Your task to perform on an android device: Show me popular games on the Play Store Image 0: 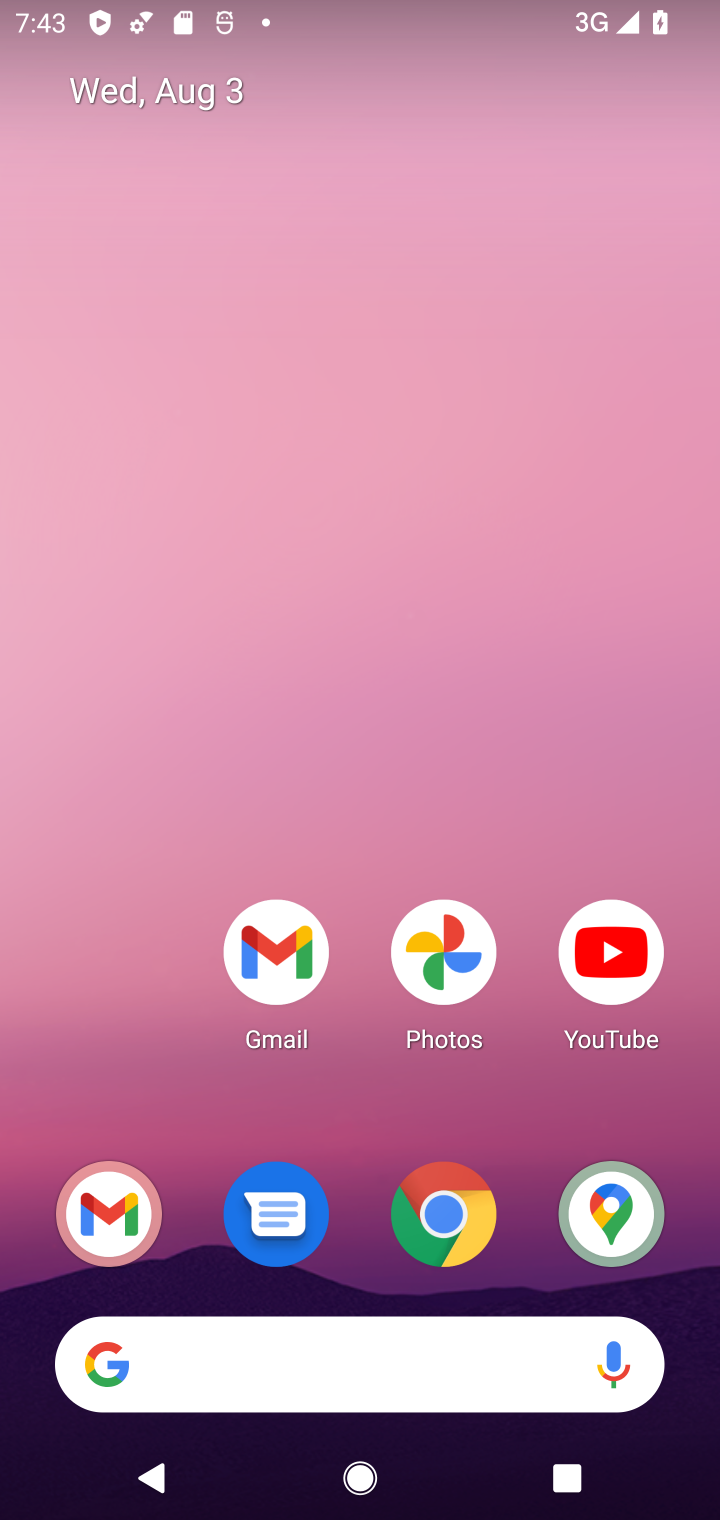
Step 0: drag from (94, 864) to (719, 498)
Your task to perform on an android device: Show me popular games on the Play Store Image 1: 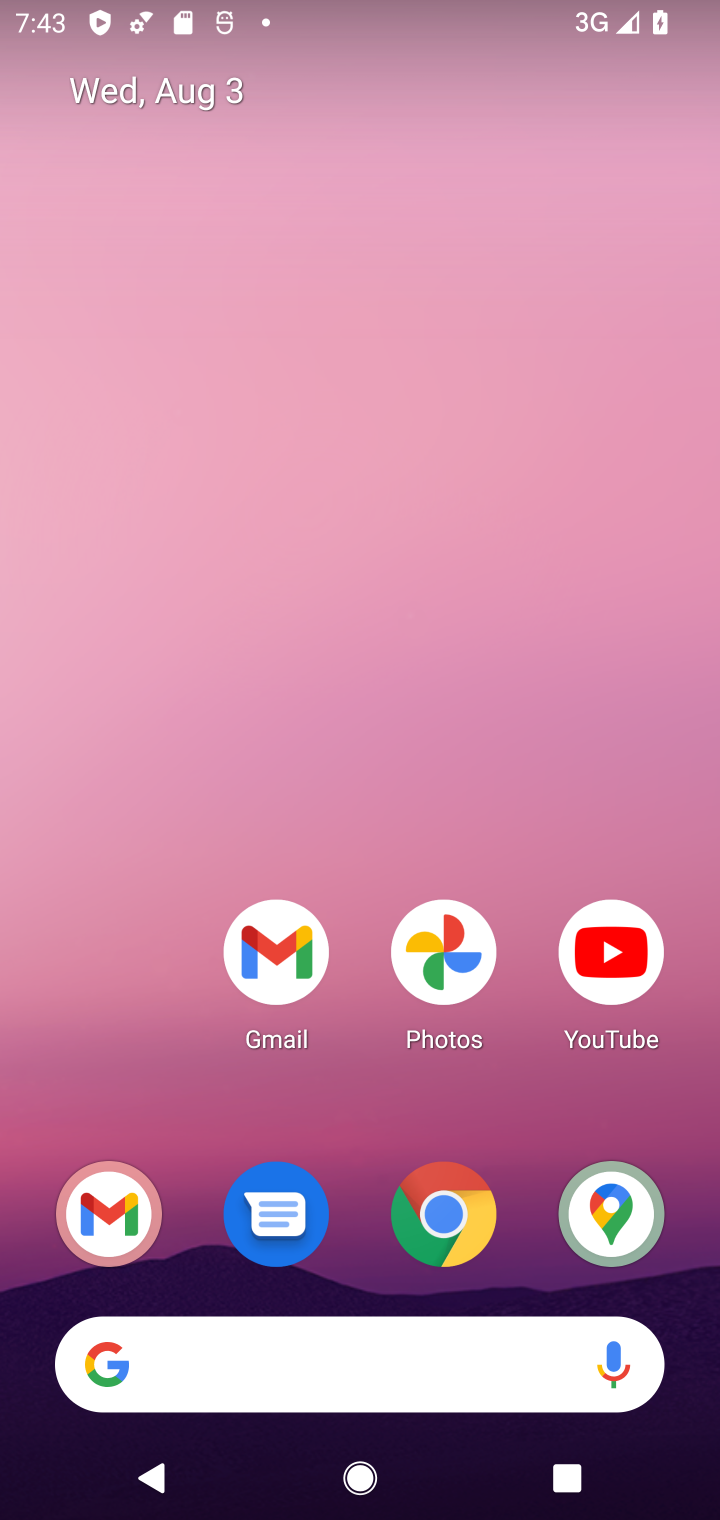
Step 1: drag from (373, 1187) to (392, 0)
Your task to perform on an android device: Show me popular games on the Play Store Image 2: 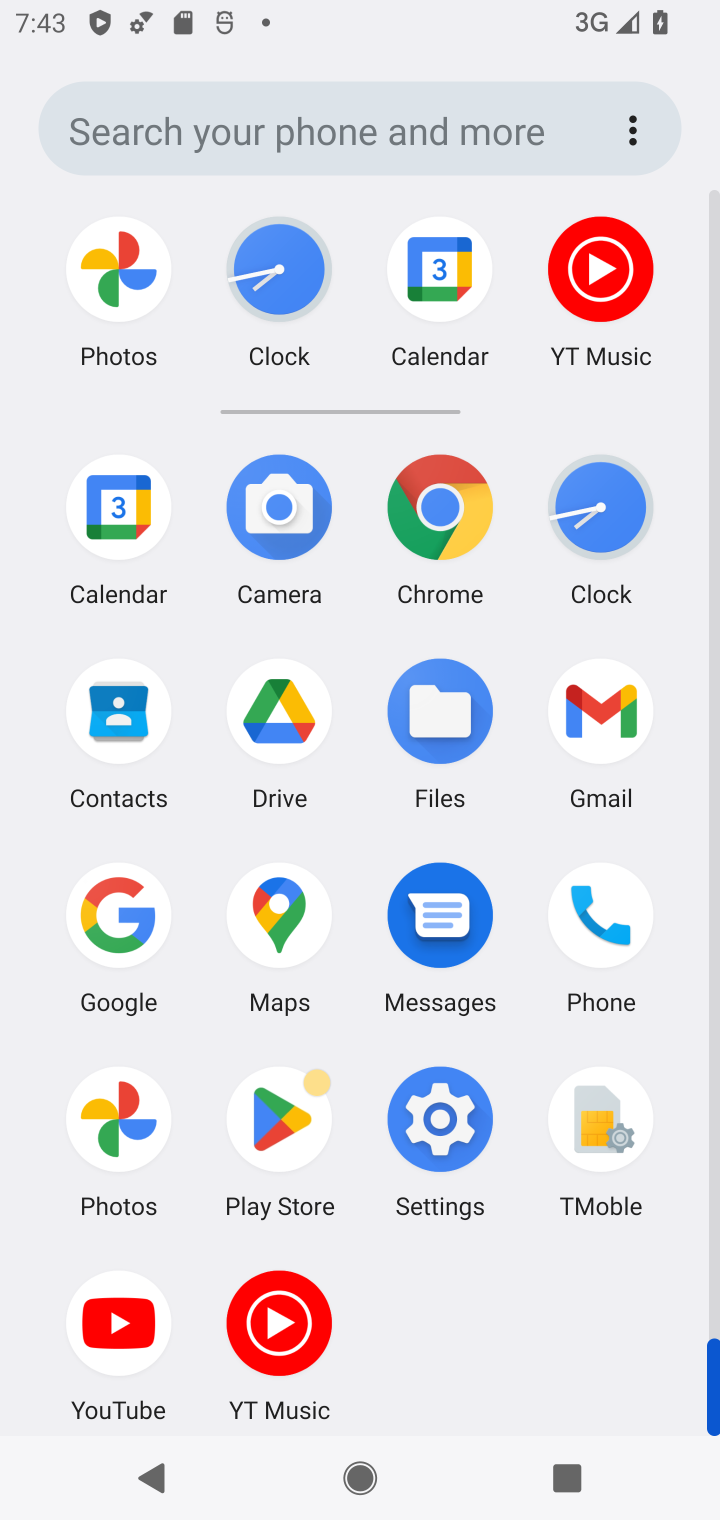
Step 2: click (267, 1123)
Your task to perform on an android device: Show me popular games on the Play Store Image 3: 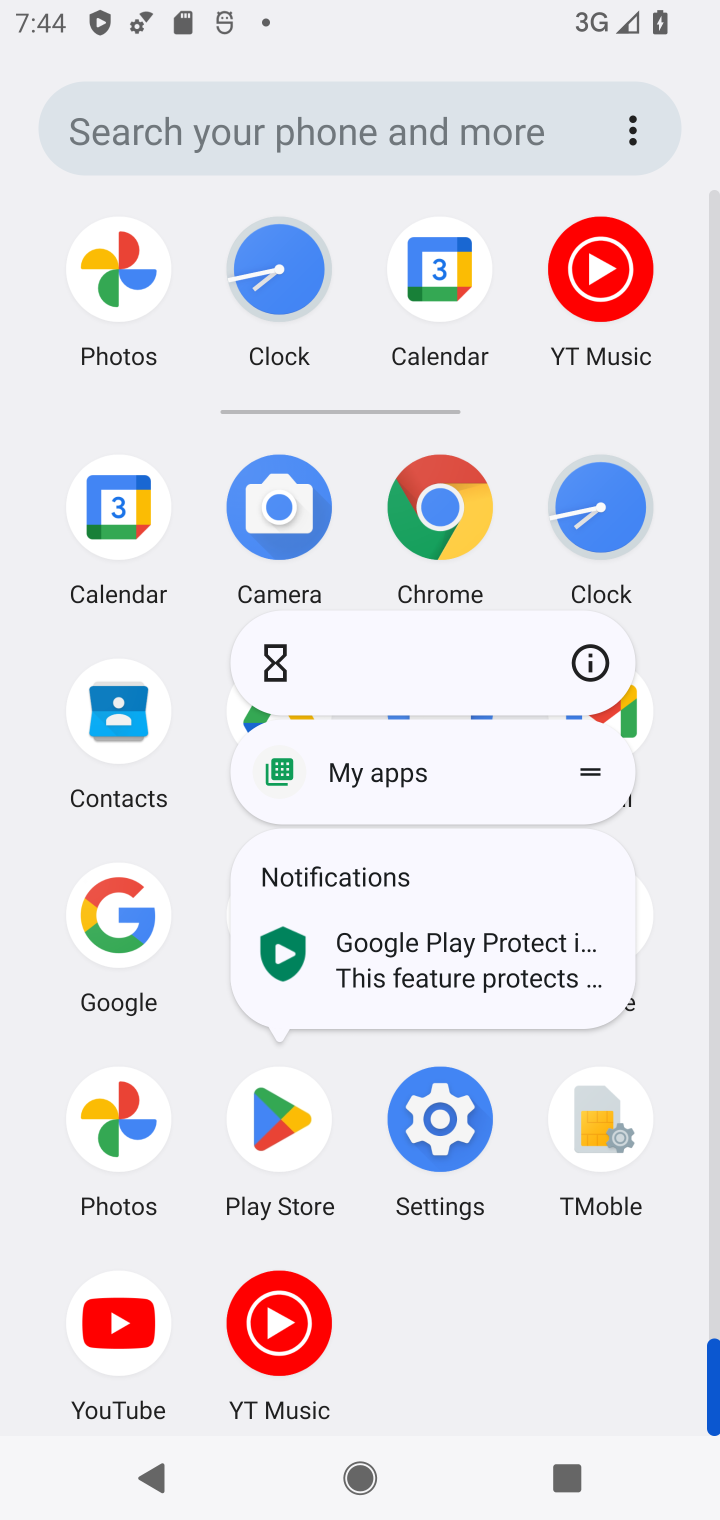
Step 3: click (258, 1121)
Your task to perform on an android device: Show me popular games on the Play Store Image 4: 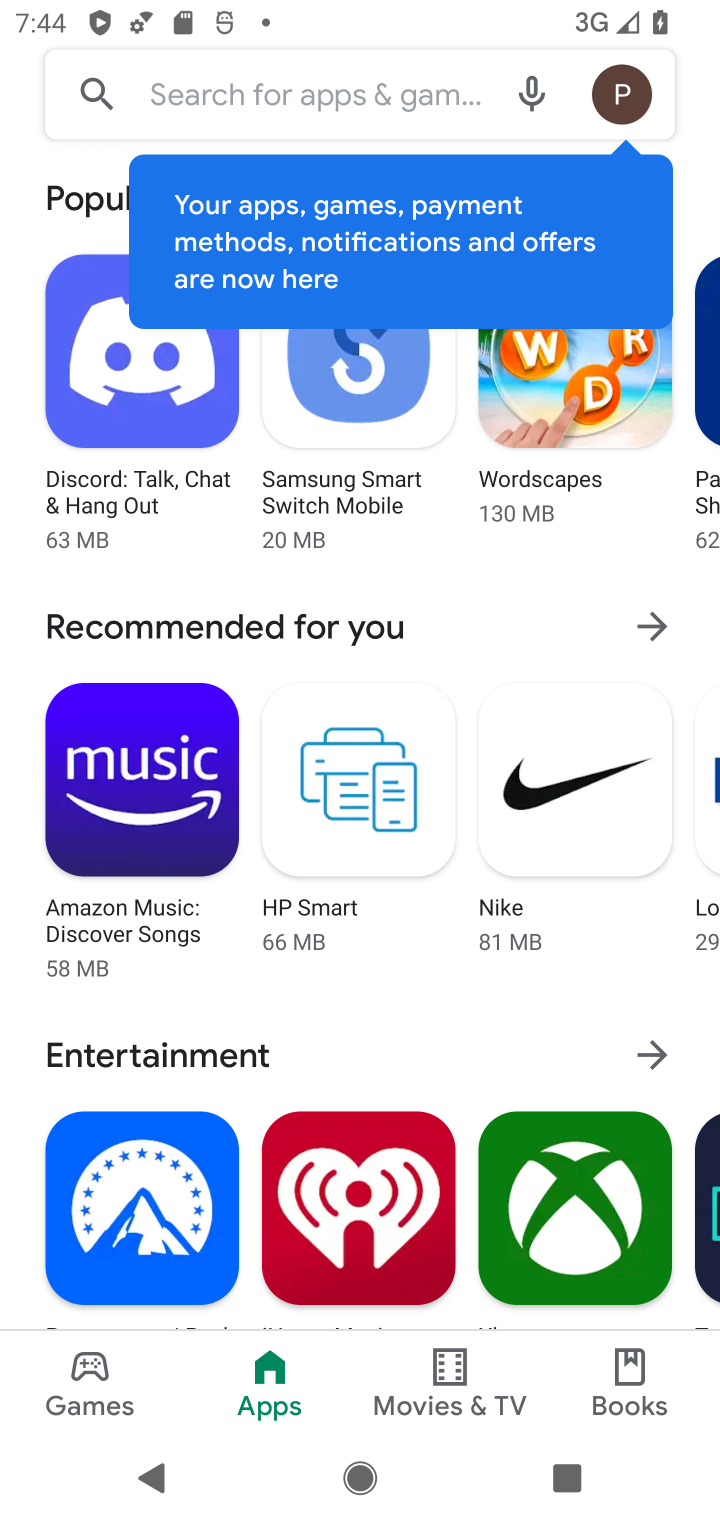
Step 4: click (309, 113)
Your task to perform on an android device: Show me popular games on the Play Store Image 5: 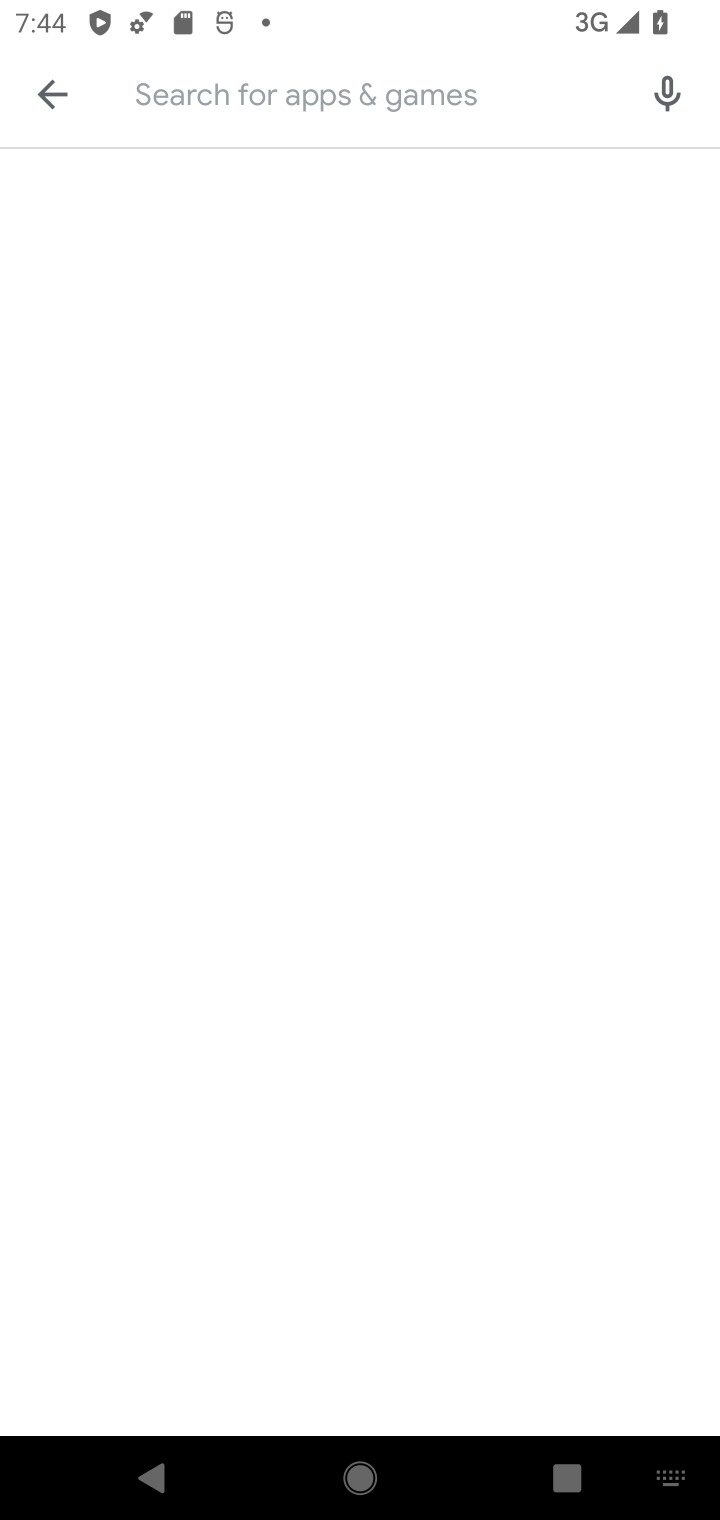
Step 5: type " popular games"
Your task to perform on an android device: Show me popular games on the Play Store Image 6: 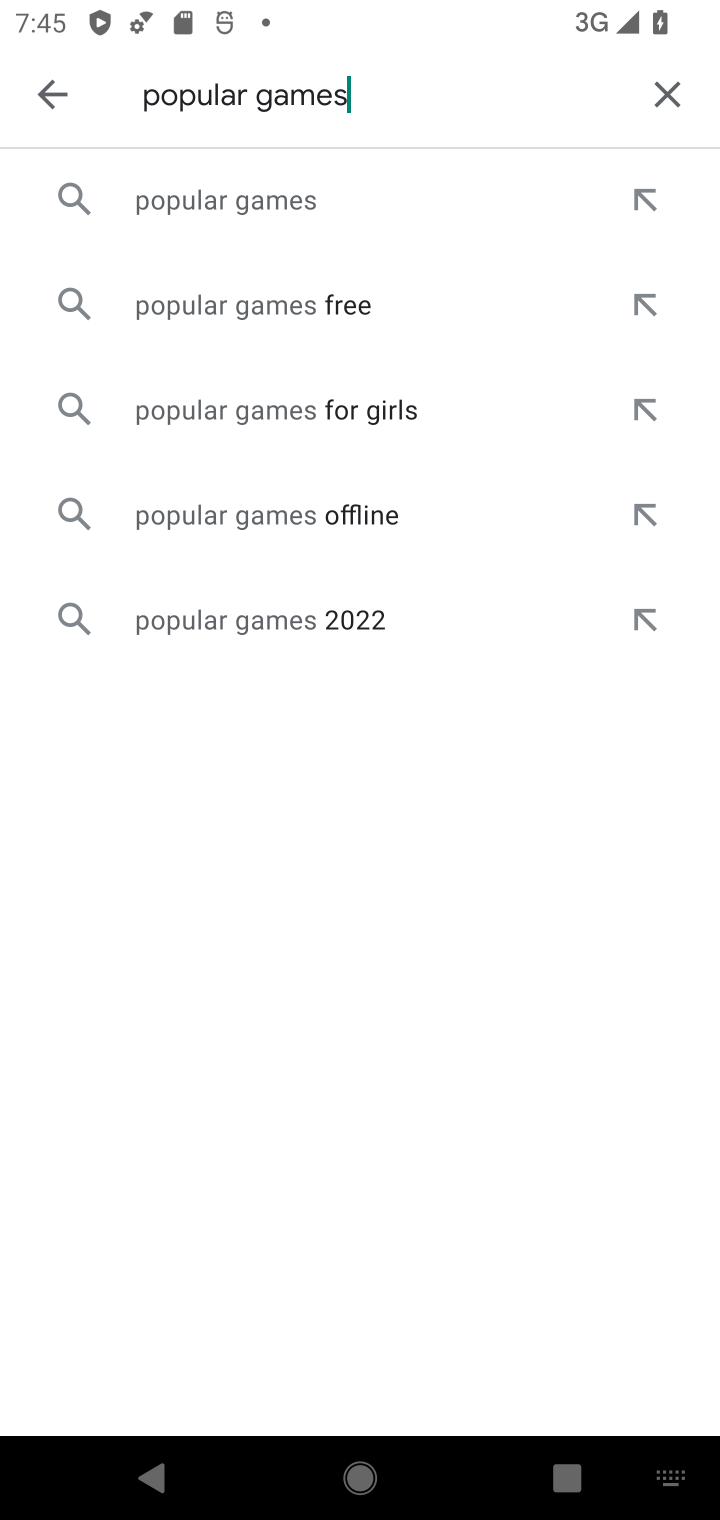
Step 6: click (255, 207)
Your task to perform on an android device: Show me popular games on the Play Store Image 7: 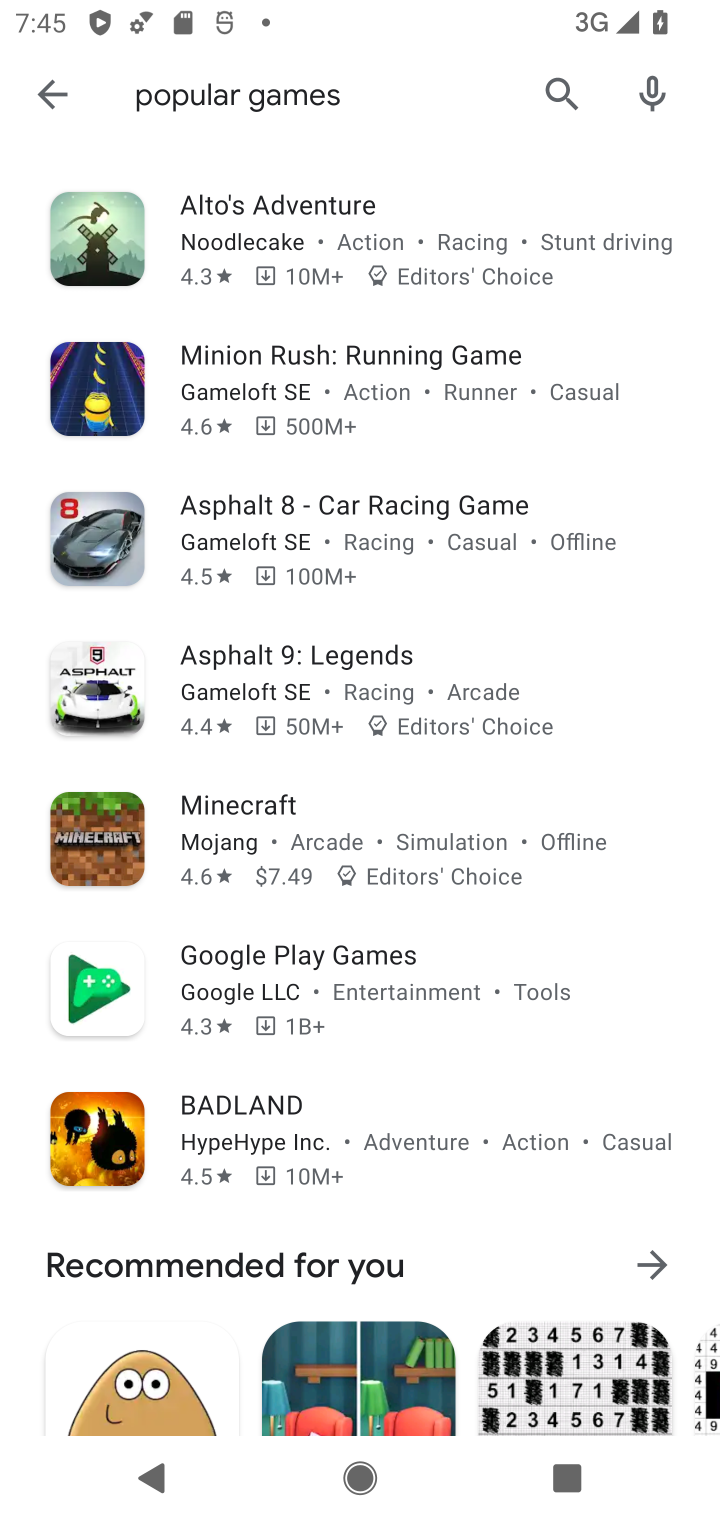
Step 7: task complete